Your task to perform on an android device: toggle translation in the chrome app Image 0: 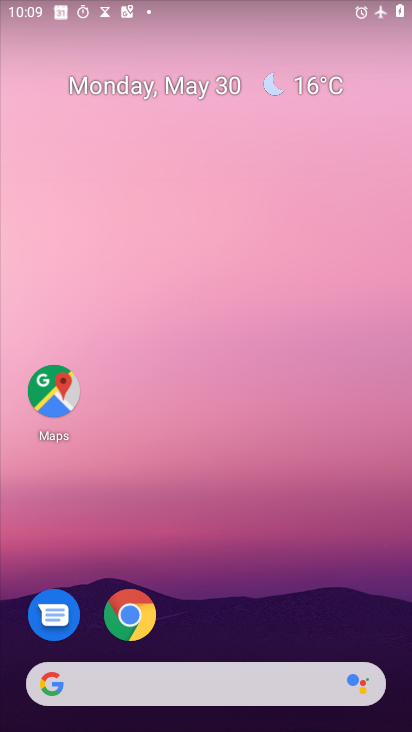
Step 0: drag from (357, 594) to (373, 93)
Your task to perform on an android device: toggle translation in the chrome app Image 1: 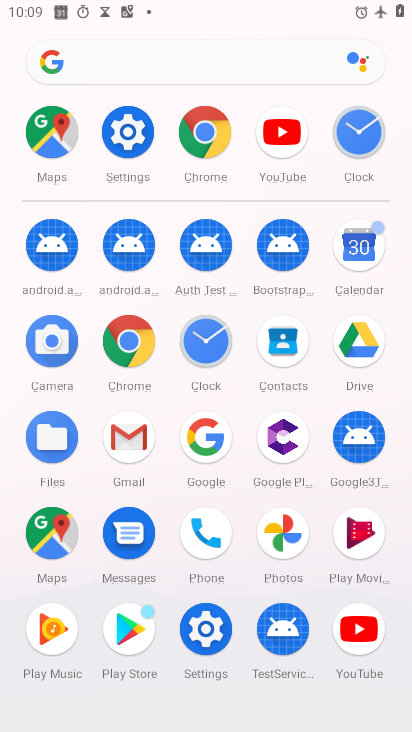
Step 1: click (208, 126)
Your task to perform on an android device: toggle translation in the chrome app Image 2: 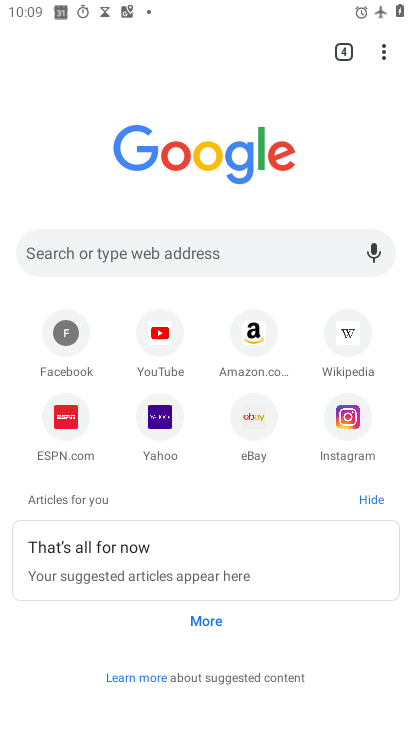
Step 2: click (381, 54)
Your task to perform on an android device: toggle translation in the chrome app Image 3: 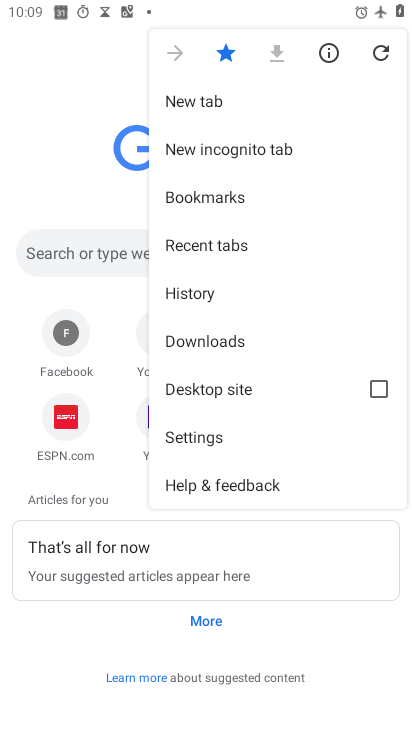
Step 3: click (197, 440)
Your task to perform on an android device: toggle translation in the chrome app Image 4: 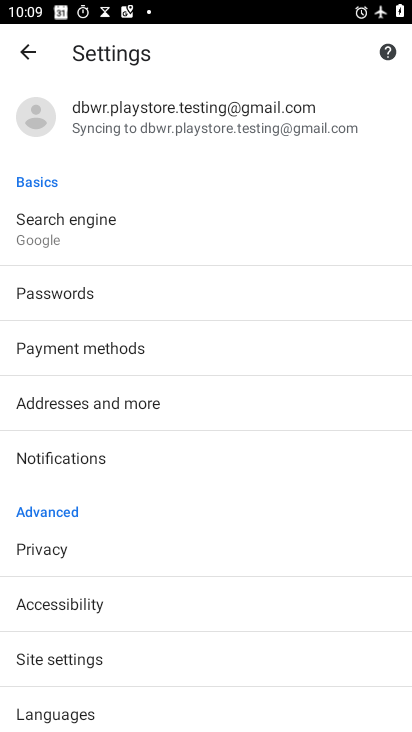
Step 4: drag from (151, 615) to (235, 117)
Your task to perform on an android device: toggle translation in the chrome app Image 5: 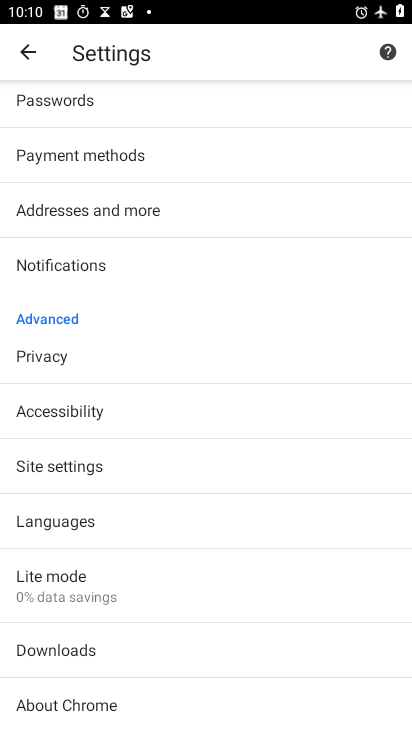
Step 5: click (87, 506)
Your task to perform on an android device: toggle translation in the chrome app Image 6: 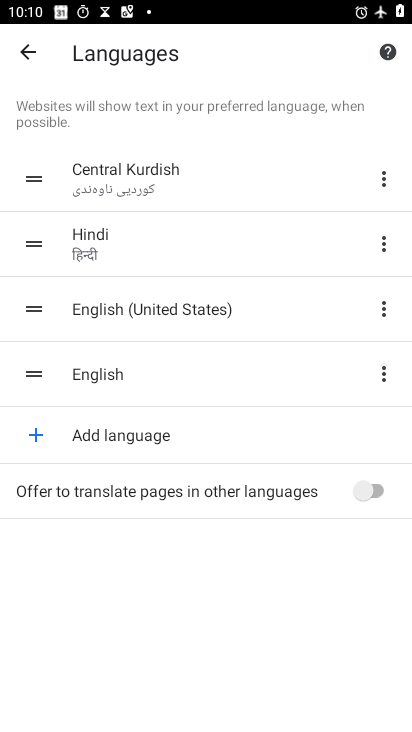
Step 6: click (368, 494)
Your task to perform on an android device: toggle translation in the chrome app Image 7: 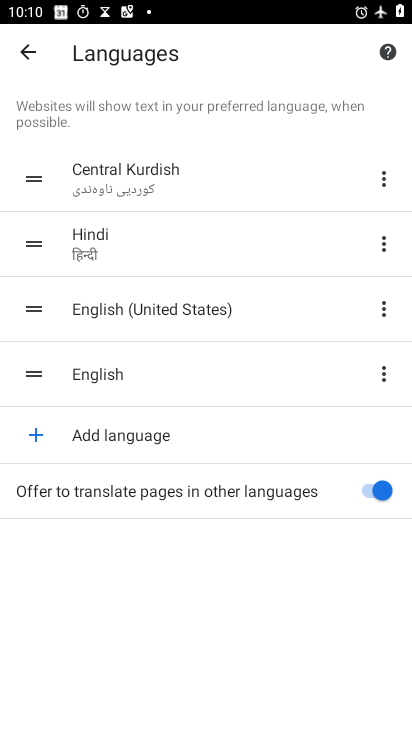
Step 7: task complete